Your task to perform on an android device: visit the assistant section in the google photos Image 0: 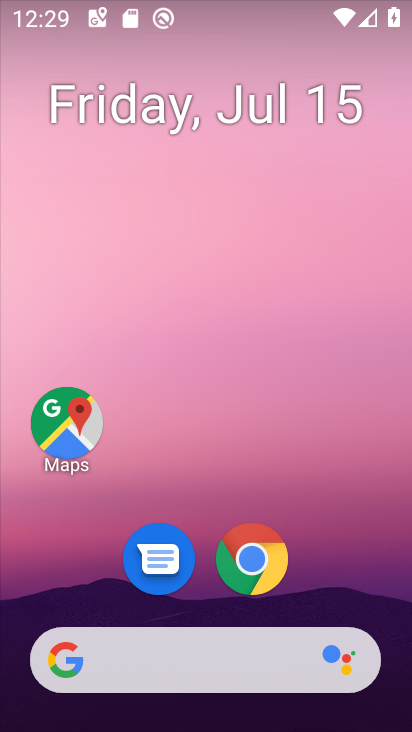
Step 0: drag from (370, 563) to (371, 175)
Your task to perform on an android device: visit the assistant section in the google photos Image 1: 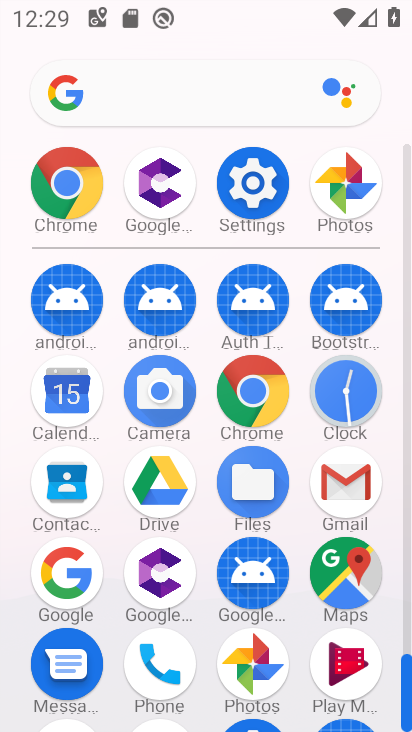
Step 1: click (349, 200)
Your task to perform on an android device: visit the assistant section in the google photos Image 2: 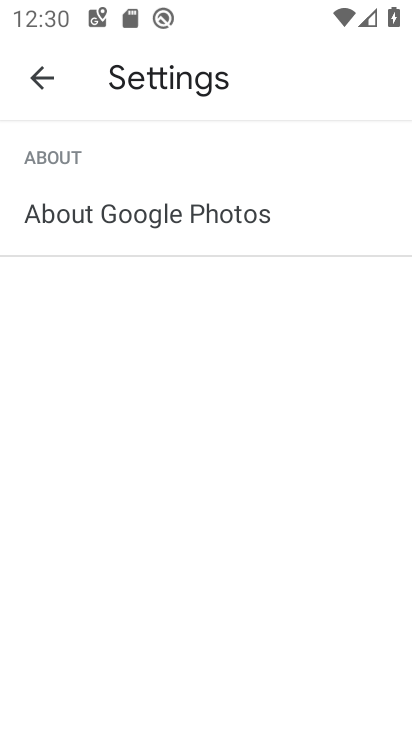
Step 2: task complete